Your task to perform on an android device: Go to internet settings Image 0: 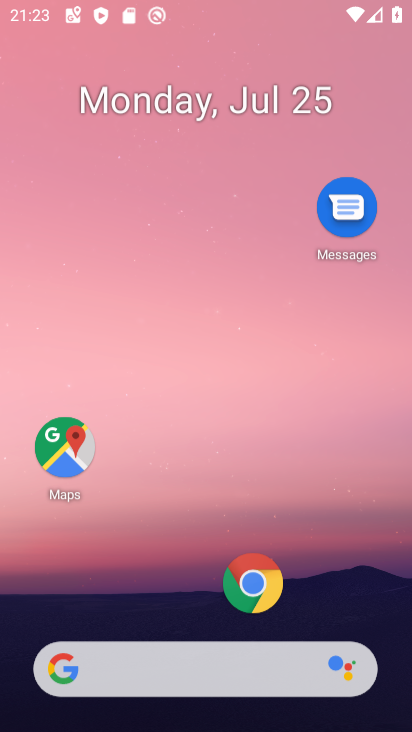
Step 0: press home button
Your task to perform on an android device: Go to internet settings Image 1: 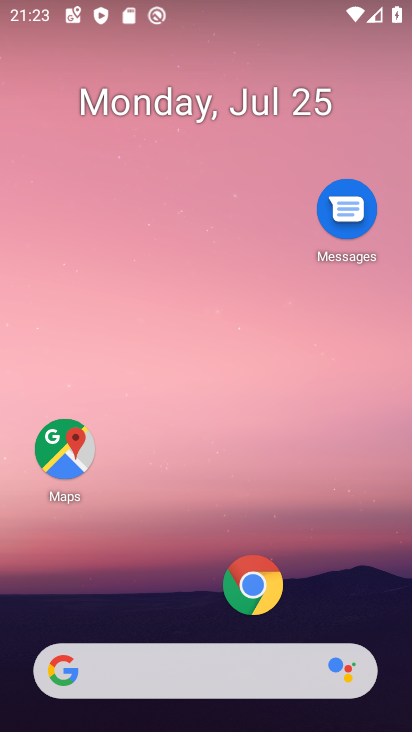
Step 1: drag from (211, 670) to (300, 0)
Your task to perform on an android device: Go to internet settings Image 2: 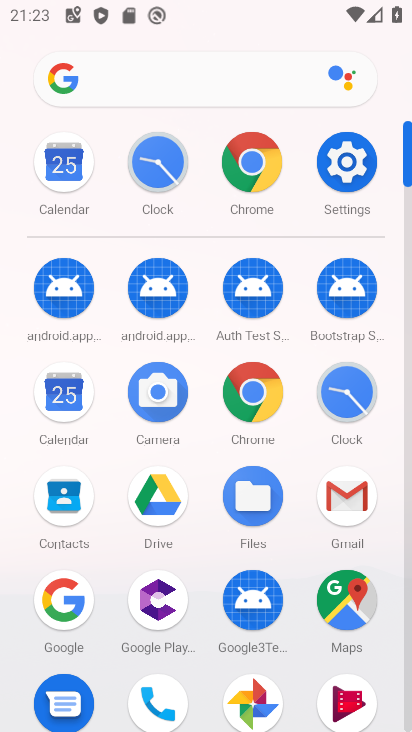
Step 2: click (332, 153)
Your task to perform on an android device: Go to internet settings Image 3: 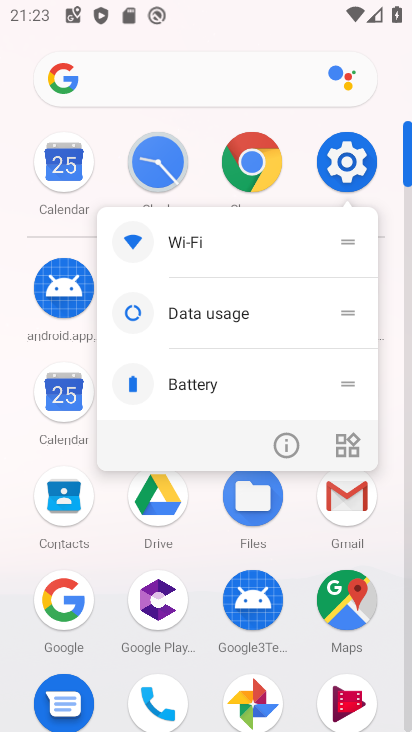
Step 3: click (332, 154)
Your task to perform on an android device: Go to internet settings Image 4: 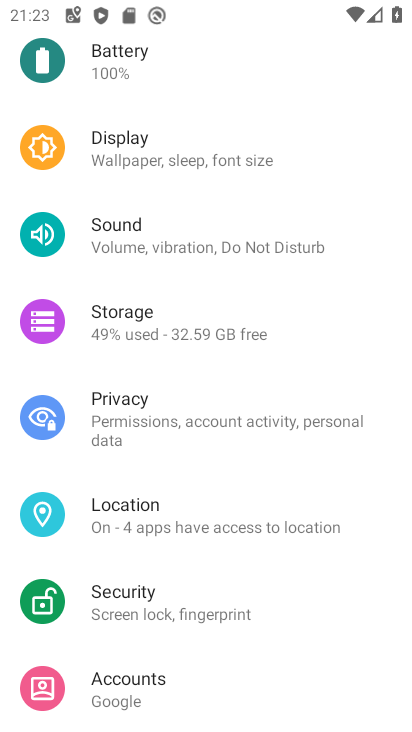
Step 4: drag from (296, 80) to (228, 567)
Your task to perform on an android device: Go to internet settings Image 5: 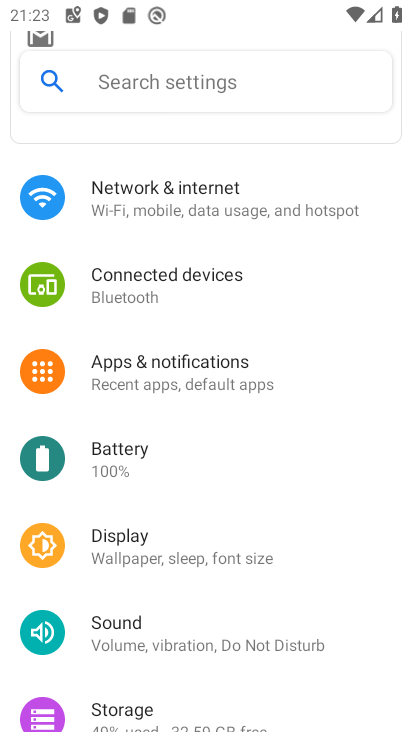
Step 5: click (140, 206)
Your task to perform on an android device: Go to internet settings Image 6: 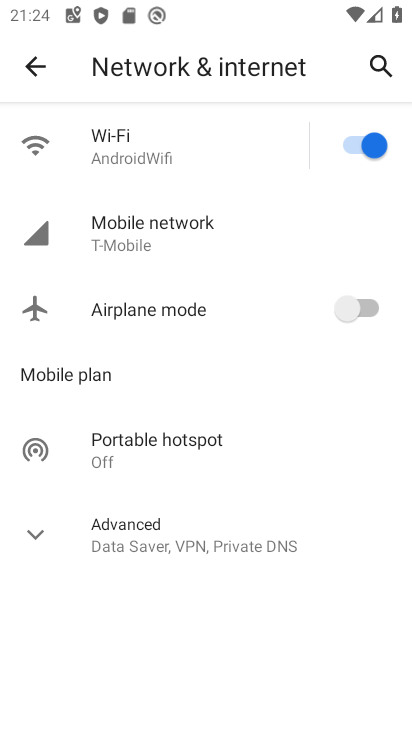
Step 6: click (128, 164)
Your task to perform on an android device: Go to internet settings Image 7: 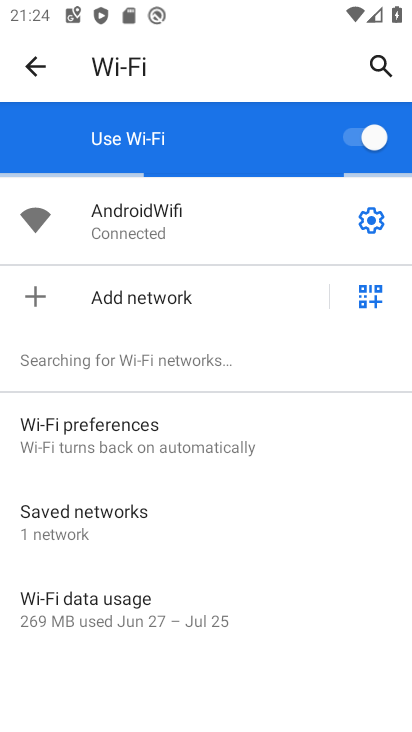
Step 7: task complete